Your task to perform on an android device: open a bookmark in the chrome app Image 0: 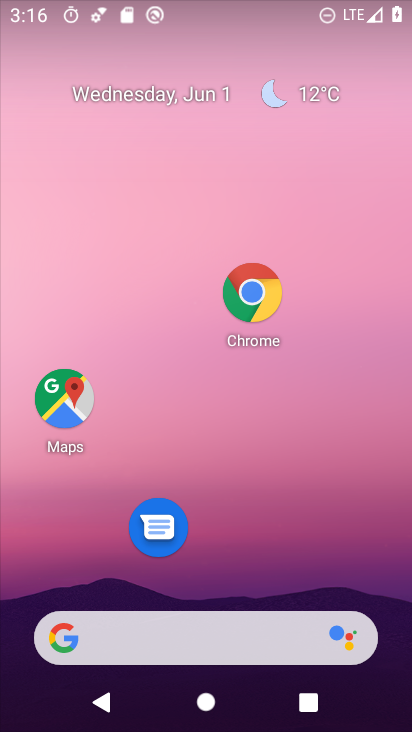
Step 0: drag from (238, 595) to (245, 353)
Your task to perform on an android device: open a bookmark in the chrome app Image 1: 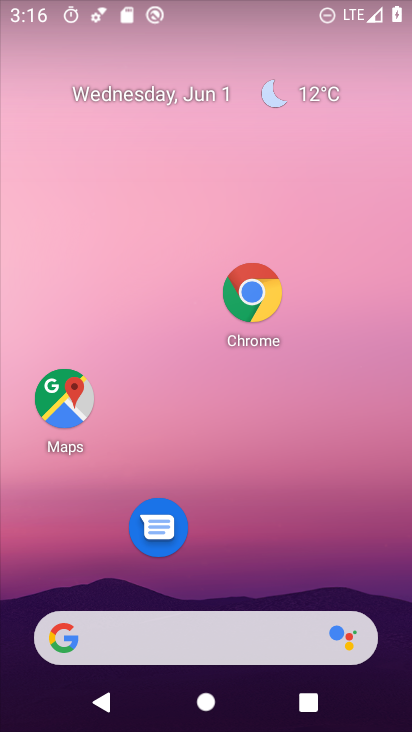
Step 1: click (260, 318)
Your task to perform on an android device: open a bookmark in the chrome app Image 2: 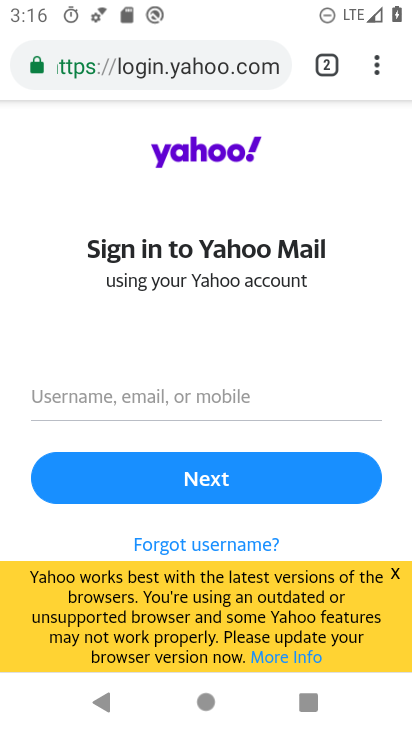
Step 2: click (378, 57)
Your task to perform on an android device: open a bookmark in the chrome app Image 3: 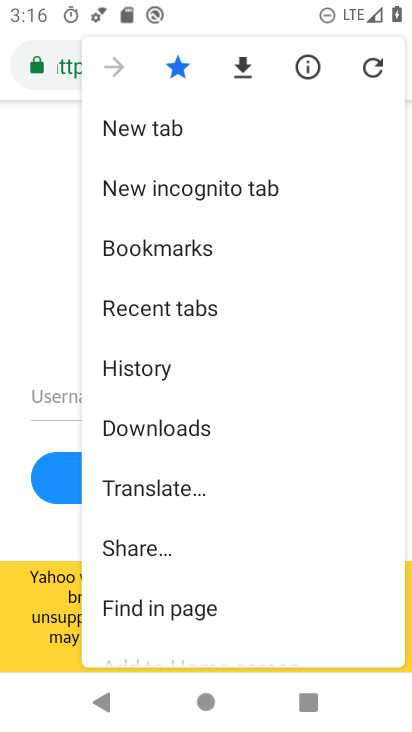
Step 3: click (153, 246)
Your task to perform on an android device: open a bookmark in the chrome app Image 4: 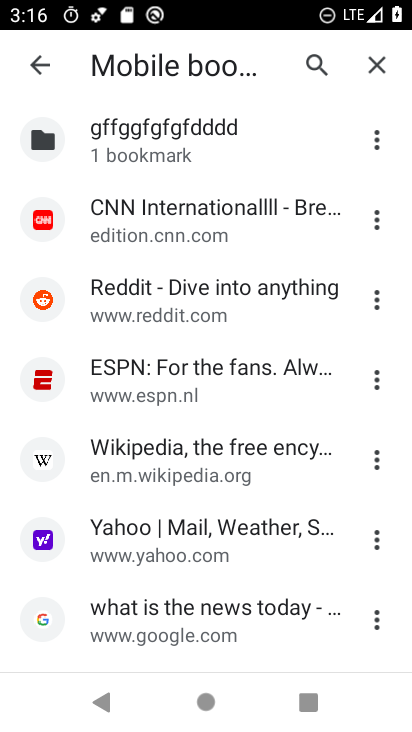
Step 4: click (144, 556)
Your task to perform on an android device: open a bookmark in the chrome app Image 5: 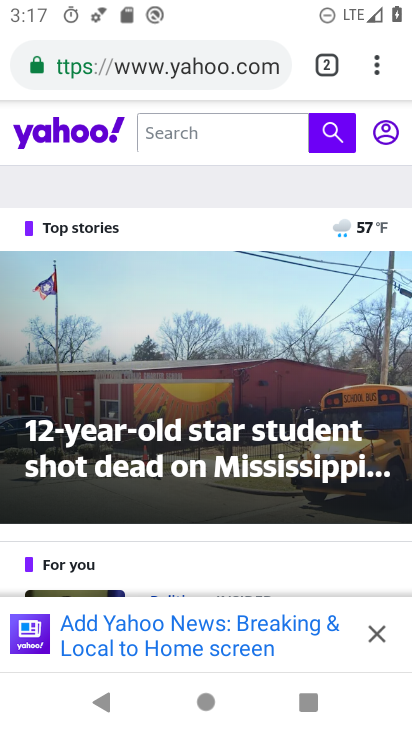
Step 5: task complete